Your task to perform on an android device: toggle translation in the chrome app Image 0: 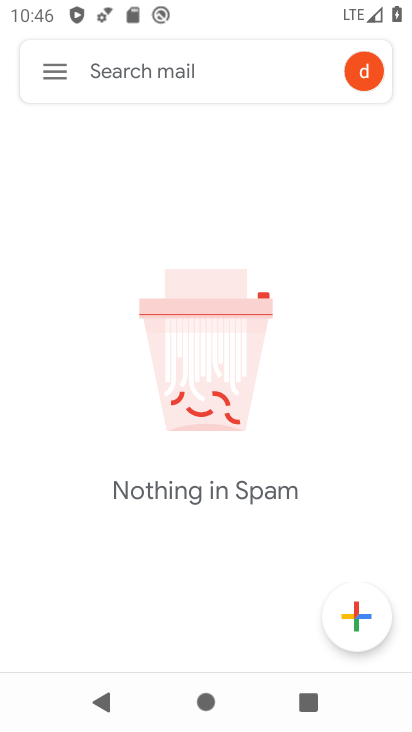
Step 0: press home button
Your task to perform on an android device: toggle translation in the chrome app Image 1: 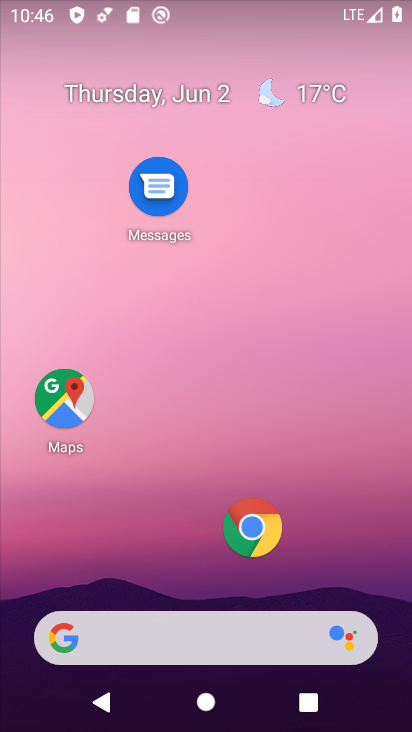
Step 1: click (258, 524)
Your task to perform on an android device: toggle translation in the chrome app Image 2: 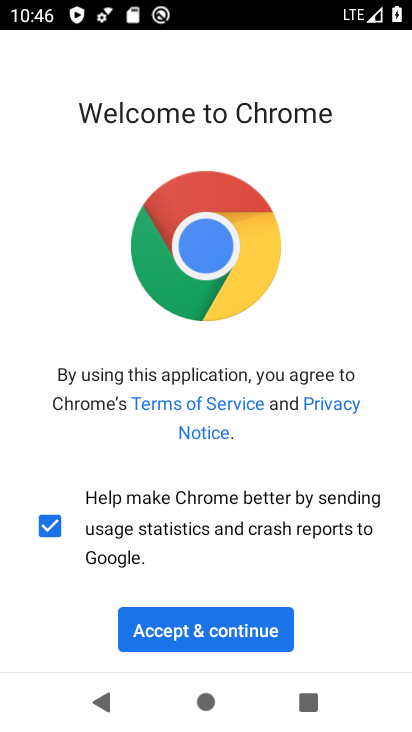
Step 2: click (204, 625)
Your task to perform on an android device: toggle translation in the chrome app Image 3: 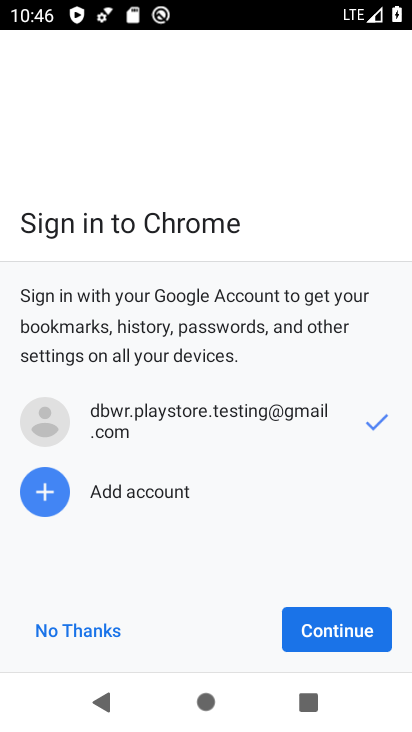
Step 3: click (335, 622)
Your task to perform on an android device: toggle translation in the chrome app Image 4: 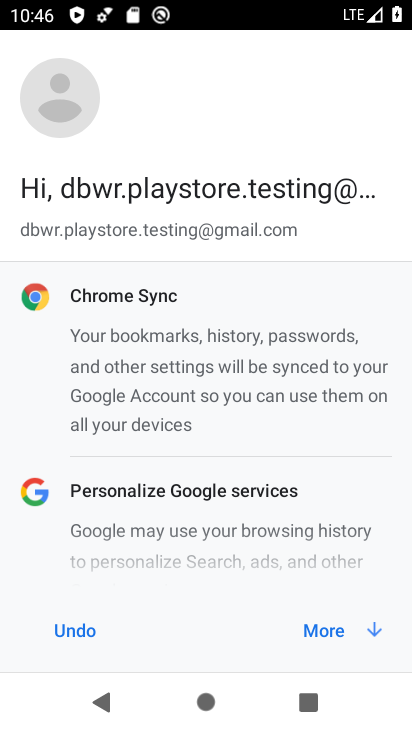
Step 4: click (335, 622)
Your task to perform on an android device: toggle translation in the chrome app Image 5: 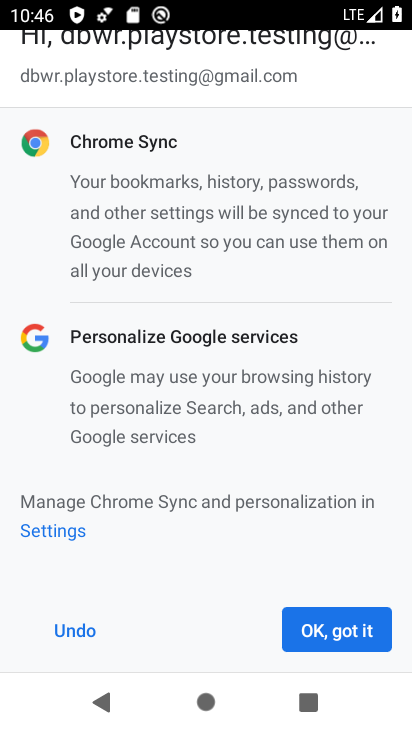
Step 5: click (336, 622)
Your task to perform on an android device: toggle translation in the chrome app Image 6: 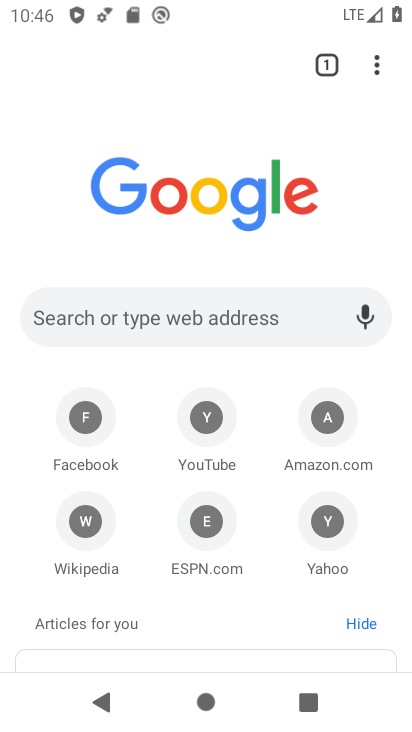
Step 6: click (380, 59)
Your task to perform on an android device: toggle translation in the chrome app Image 7: 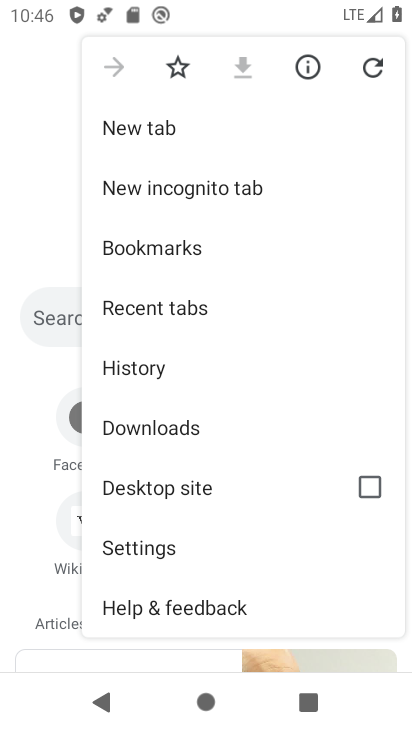
Step 7: click (187, 546)
Your task to perform on an android device: toggle translation in the chrome app Image 8: 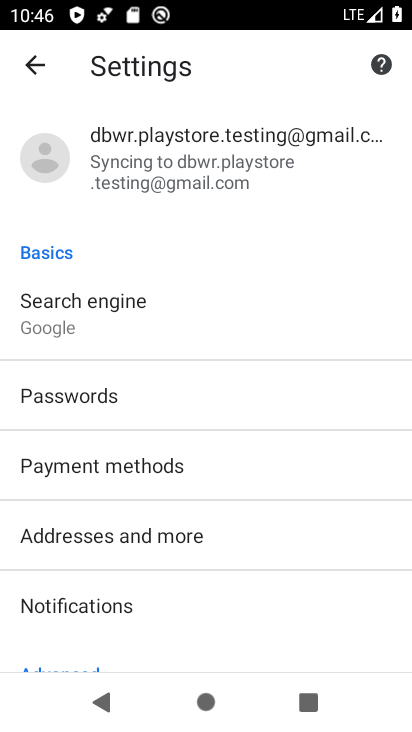
Step 8: drag from (199, 605) to (255, 176)
Your task to perform on an android device: toggle translation in the chrome app Image 9: 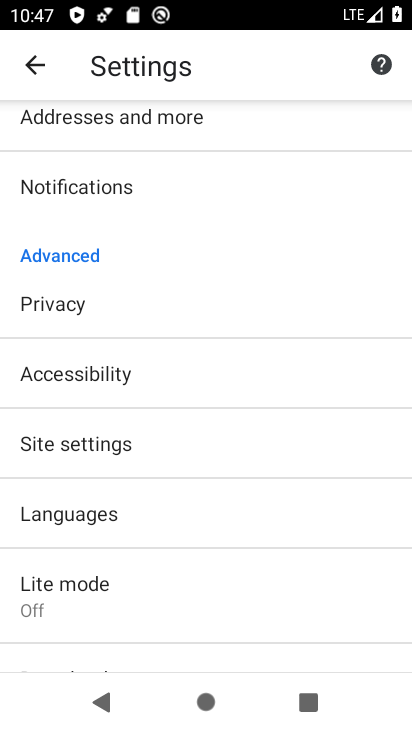
Step 9: click (138, 519)
Your task to perform on an android device: toggle translation in the chrome app Image 10: 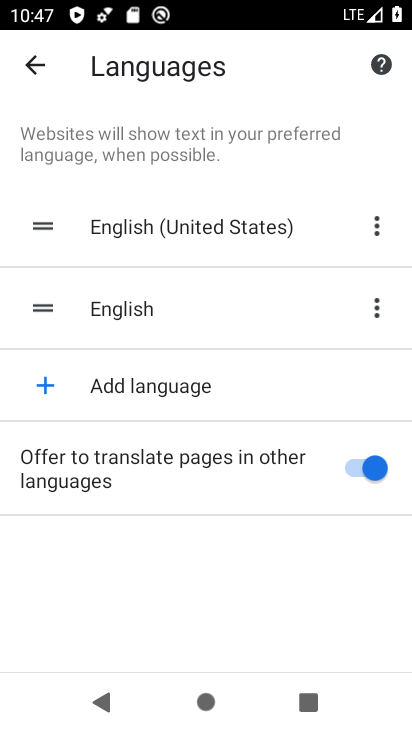
Step 10: click (353, 474)
Your task to perform on an android device: toggle translation in the chrome app Image 11: 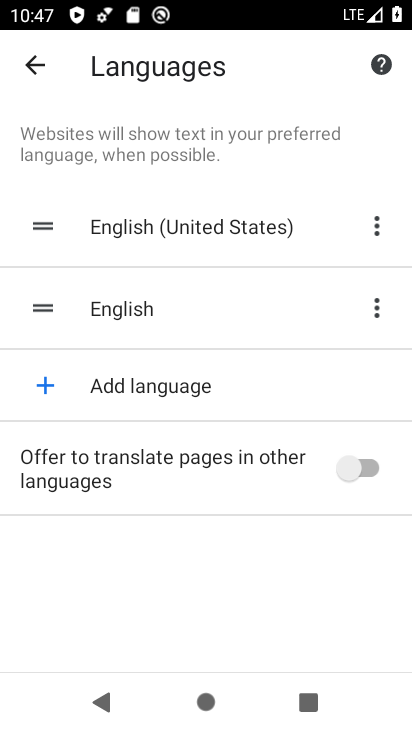
Step 11: task complete